Your task to perform on an android device: turn on sleep mode Image 0: 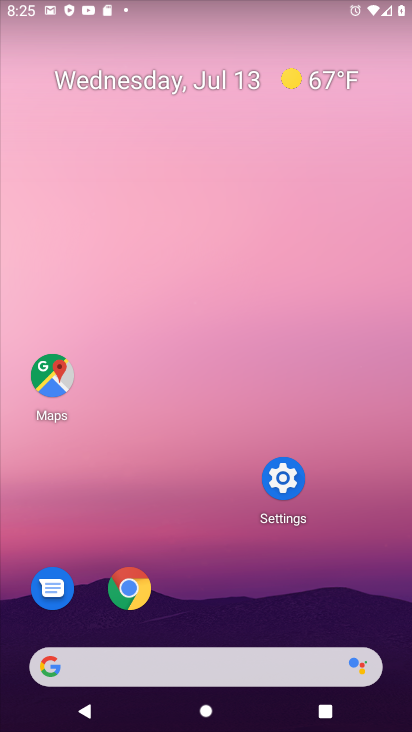
Step 0: click (276, 506)
Your task to perform on an android device: turn on sleep mode Image 1: 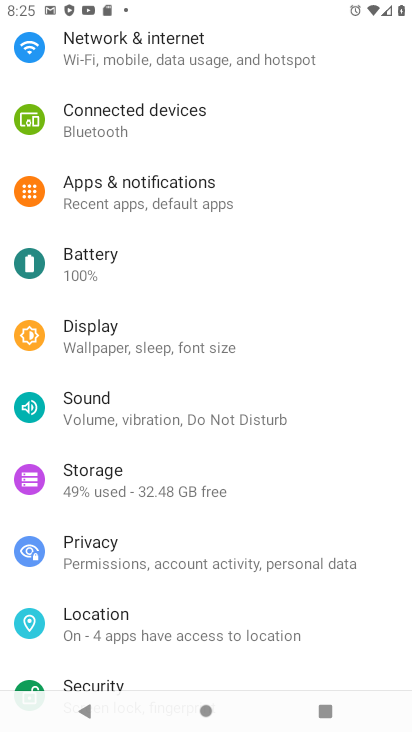
Step 1: drag from (110, 135) to (66, 317)
Your task to perform on an android device: turn on sleep mode Image 2: 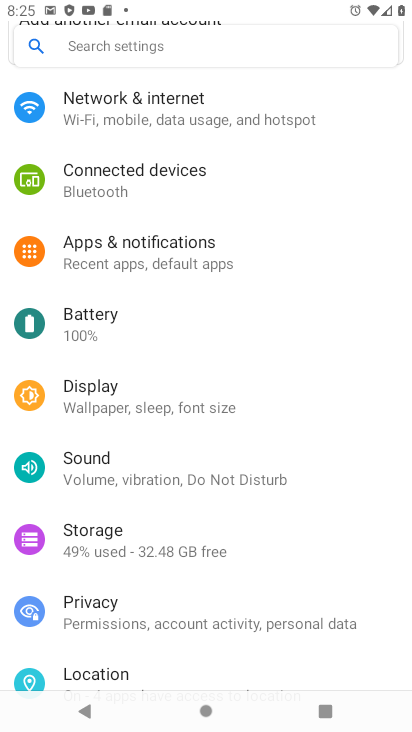
Step 2: click (92, 52)
Your task to perform on an android device: turn on sleep mode Image 3: 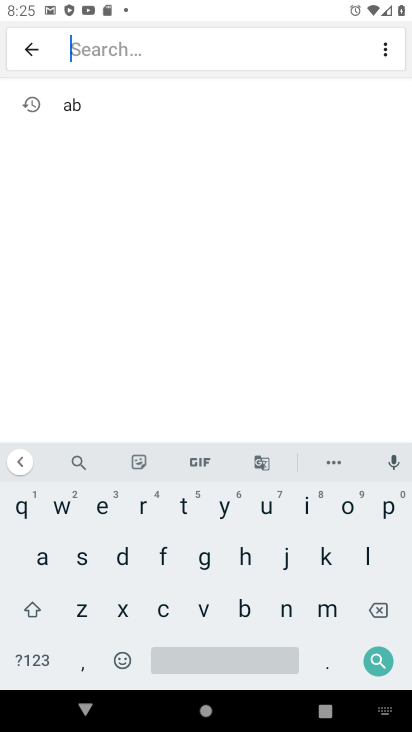
Step 3: click (79, 562)
Your task to perform on an android device: turn on sleep mode Image 4: 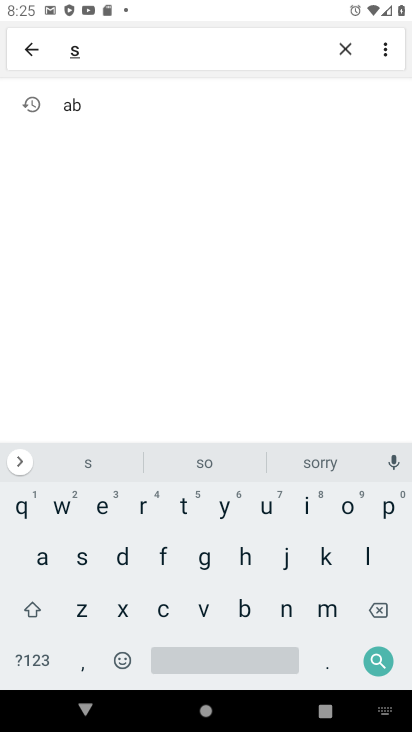
Step 4: click (364, 559)
Your task to perform on an android device: turn on sleep mode Image 5: 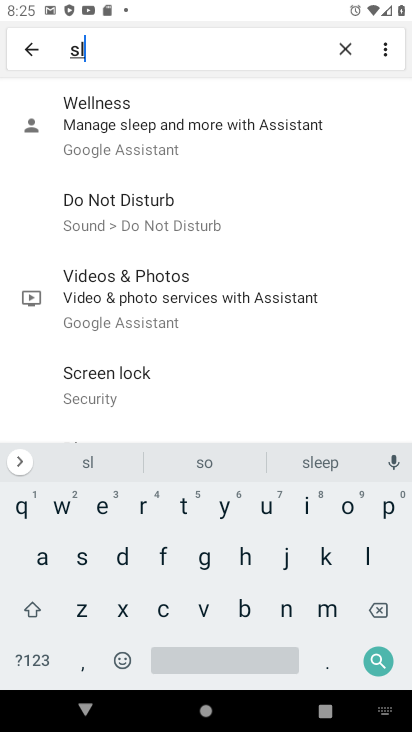
Step 5: click (111, 198)
Your task to perform on an android device: turn on sleep mode Image 6: 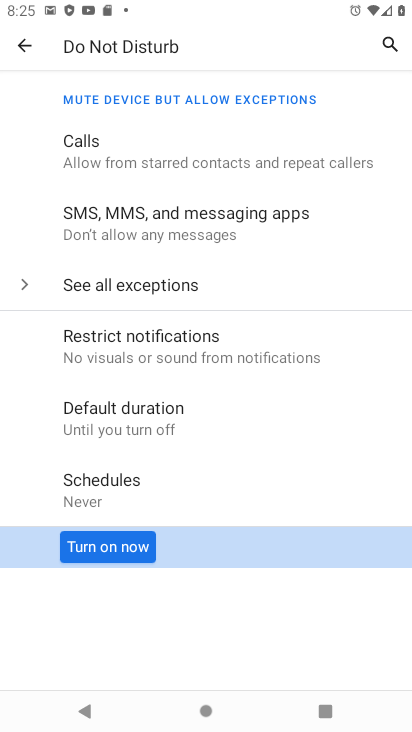
Step 6: click (101, 557)
Your task to perform on an android device: turn on sleep mode Image 7: 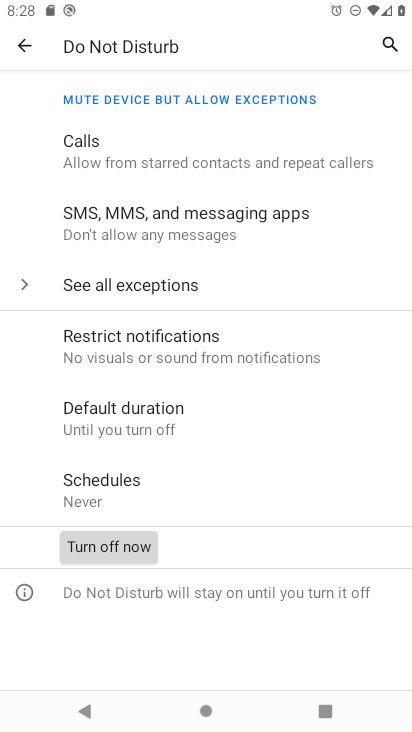
Step 7: task complete